Your task to perform on an android device: Search for seafood restaurants on Google Maps Image 0: 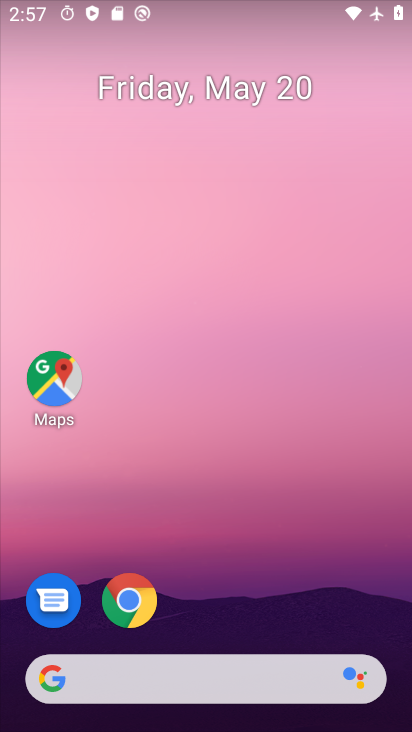
Step 0: drag from (171, 536) to (190, 37)
Your task to perform on an android device: Search for seafood restaurants on Google Maps Image 1: 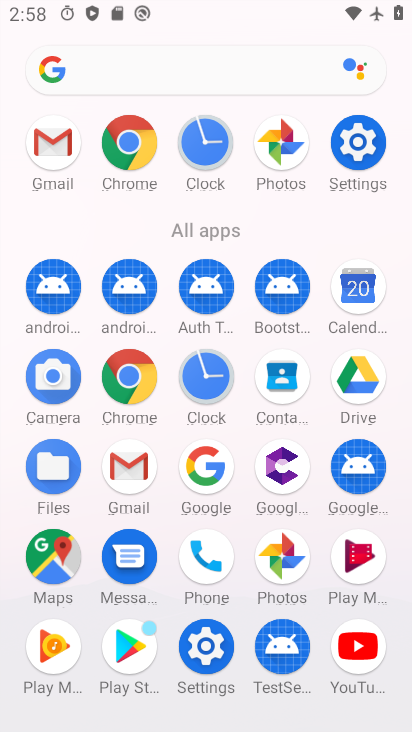
Step 1: drag from (13, 585) to (14, 269)
Your task to perform on an android device: Search for seafood restaurants on Google Maps Image 2: 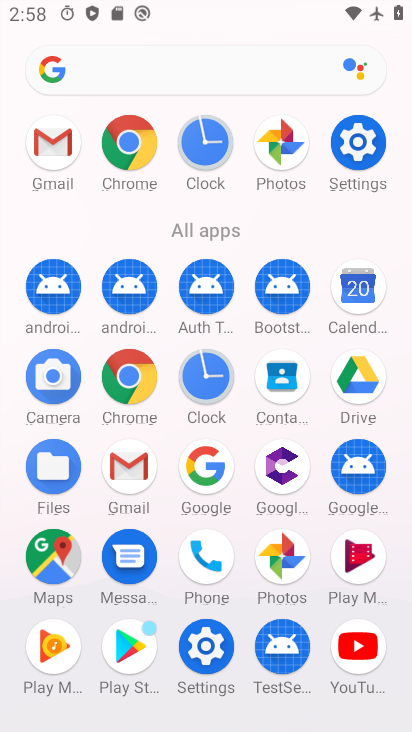
Step 2: click (52, 553)
Your task to perform on an android device: Search for seafood restaurants on Google Maps Image 3: 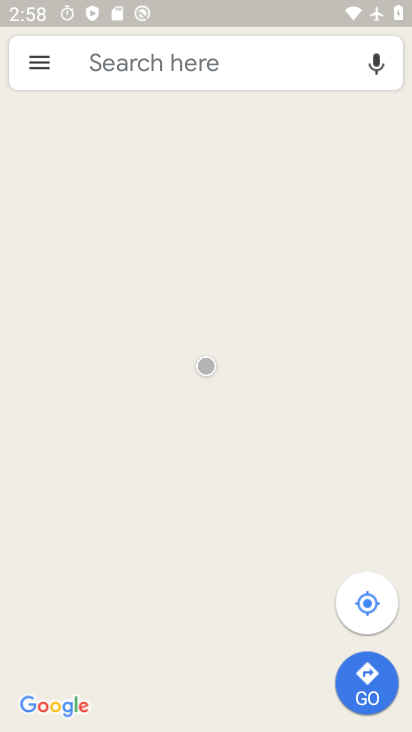
Step 3: click (223, 59)
Your task to perform on an android device: Search for seafood restaurants on Google Maps Image 4: 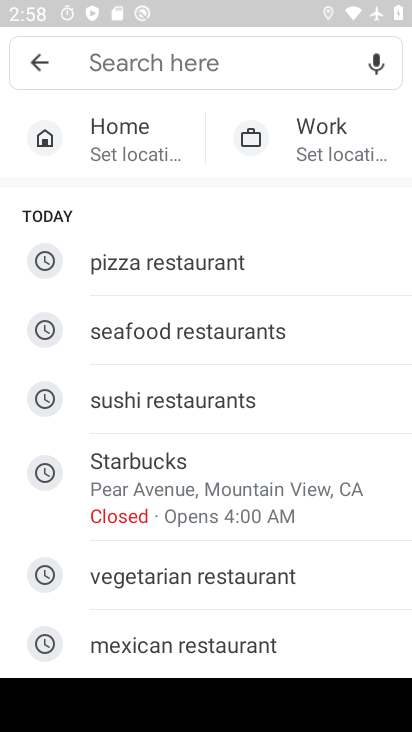
Step 4: type "seafood restaurants"
Your task to perform on an android device: Search for seafood restaurants on Google Maps Image 5: 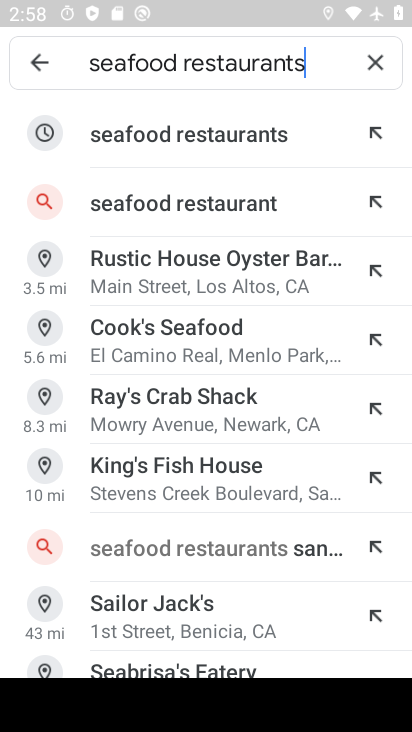
Step 5: click (163, 140)
Your task to perform on an android device: Search for seafood restaurants on Google Maps Image 6: 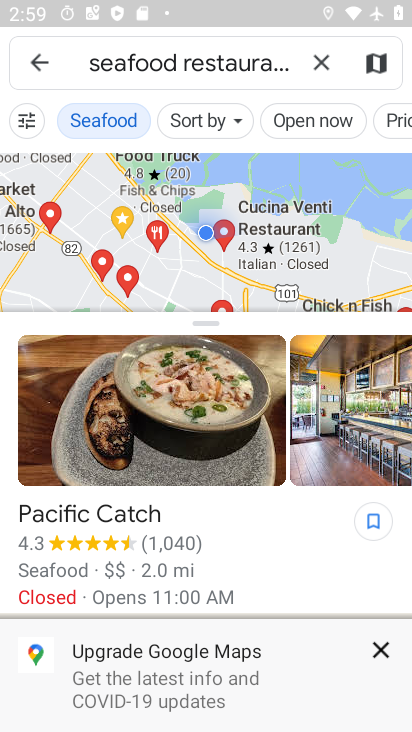
Step 6: task complete